Your task to perform on an android device: open chrome and create a bookmark for the current page Image 0: 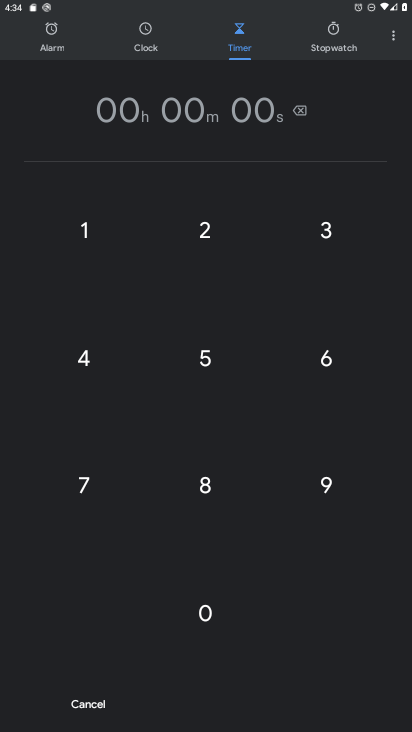
Step 0: press home button
Your task to perform on an android device: open chrome and create a bookmark for the current page Image 1: 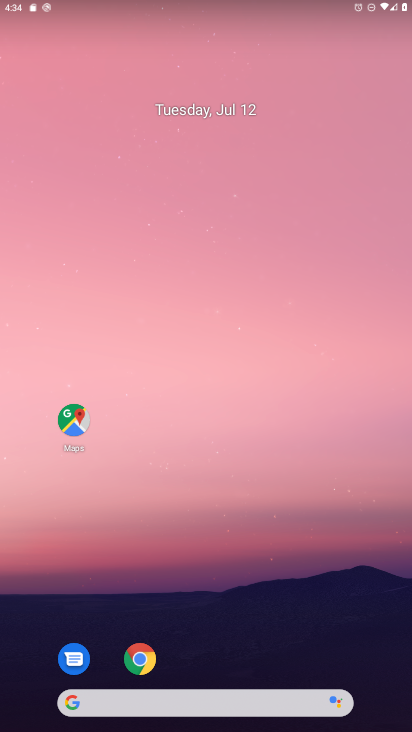
Step 1: click (130, 656)
Your task to perform on an android device: open chrome and create a bookmark for the current page Image 2: 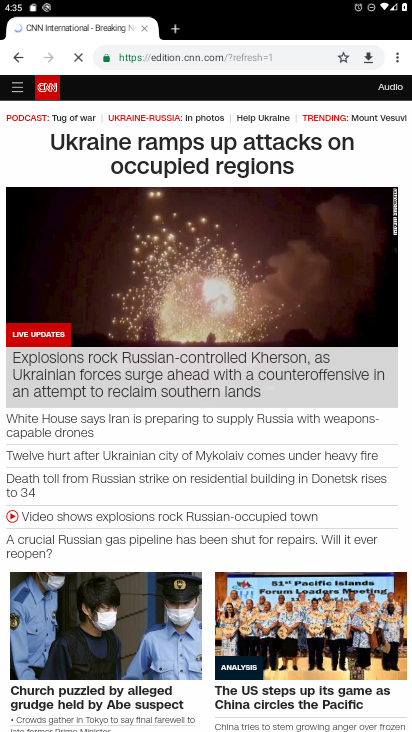
Step 2: click (343, 54)
Your task to perform on an android device: open chrome and create a bookmark for the current page Image 3: 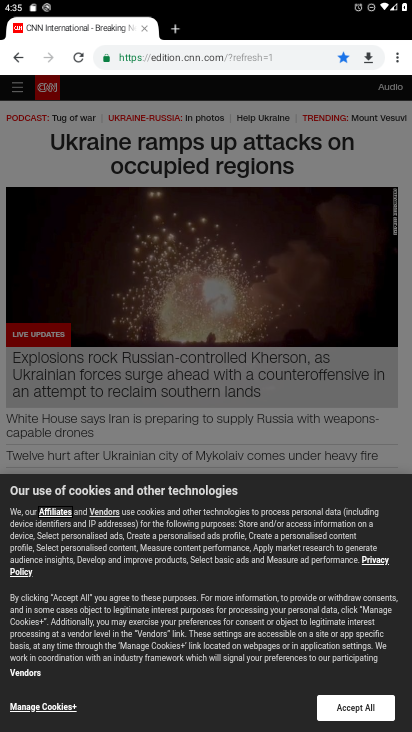
Step 3: task complete